Your task to perform on an android device: toggle airplane mode Image 0: 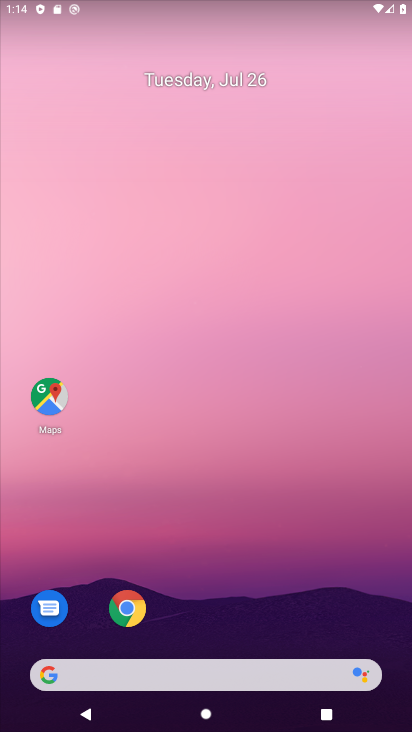
Step 0: drag from (247, 619) to (274, 132)
Your task to perform on an android device: toggle airplane mode Image 1: 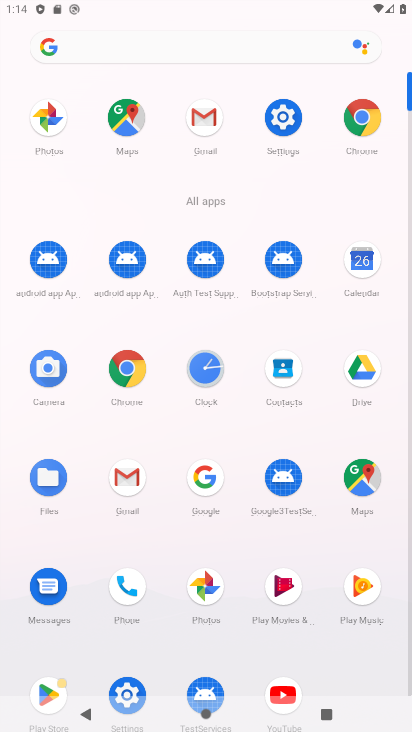
Step 1: drag from (304, 5) to (155, 731)
Your task to perform on an android device: toggle airplane mode Image 2: 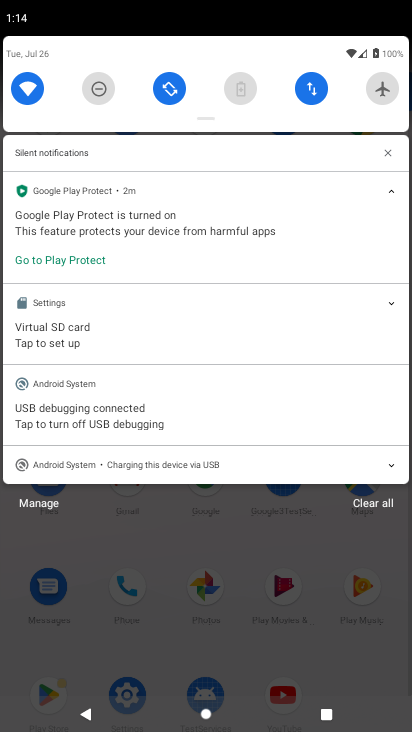
Step 2: click (190, 616)
Your task to perform on an android device: toggle airplane mode Image 3: 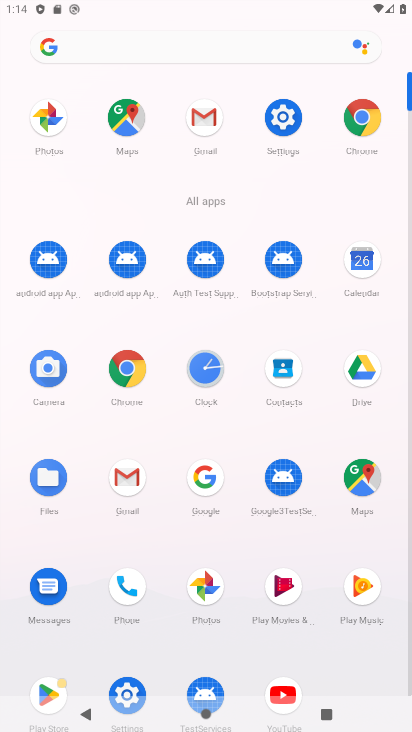
Step 3: click (130, 690)
Your task to perform on an android device: toggle airplane mode Image 4: 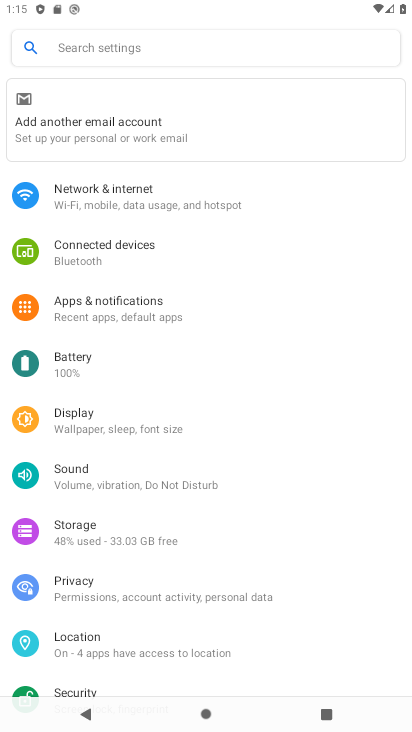
Step 4: click (147, 209)
Your task to perform on an android device: toggle airplane mode Image 5: 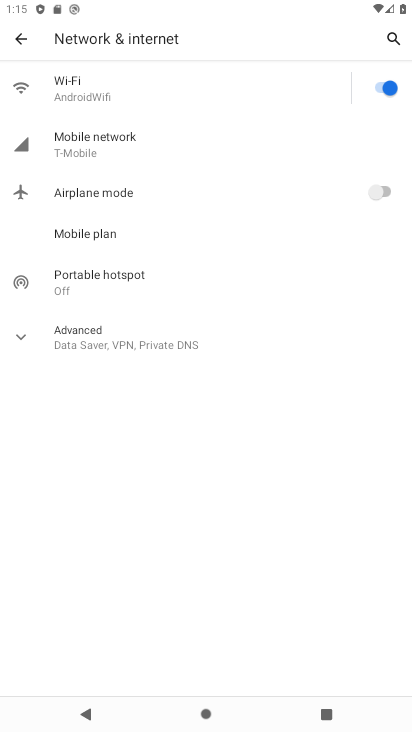
Step 5: click (374, 187)
Your task to perform on an android device: toggle airplane mode Image 6: 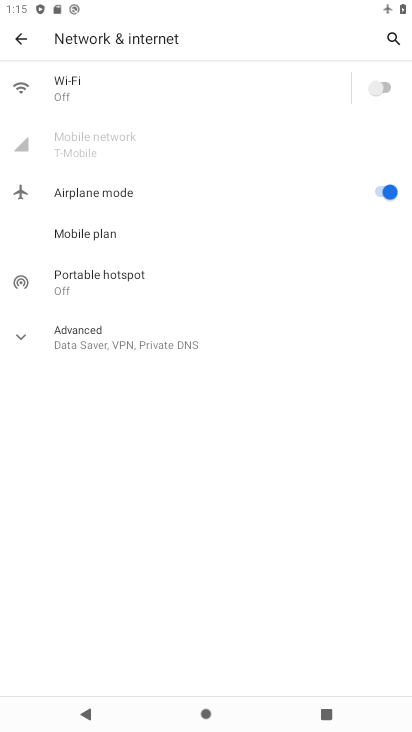
Step 6: task complete